Your task to perform on an android device: turn on the 24-hour format for clock Image 0: 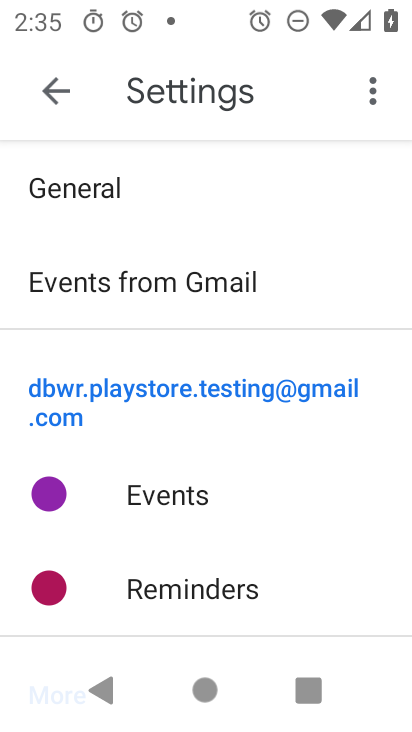
Step 0: press home button
Your task to perform on an android device: turn on the 24-hour format for clock Image 1: 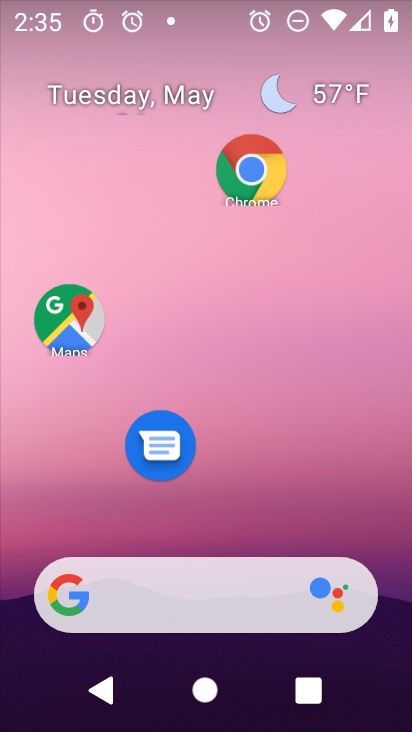
Step 1: drag from (247, 729) to (213, 95)
Your task to perform on an android device: turn on the 24-hour format for clock Image 2: 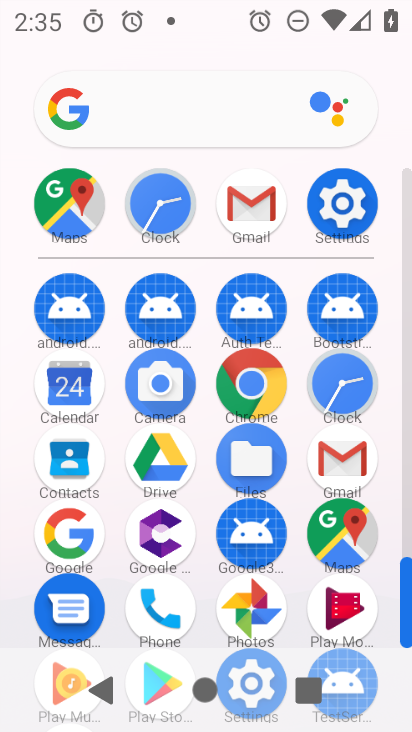
Step 2: click (344, 384)
Your task to perform on an android device: turn on the 24-hour format for clock Image 3: 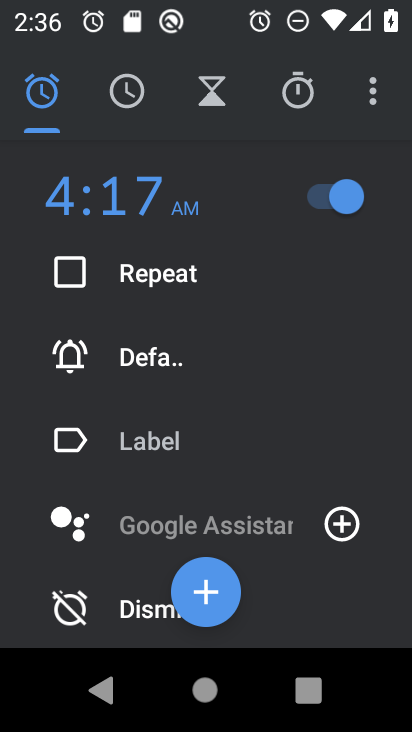
Step 3: click (374, 100)
Your task to perform on an android device: turn on the 24-hour format for clock Image 4: 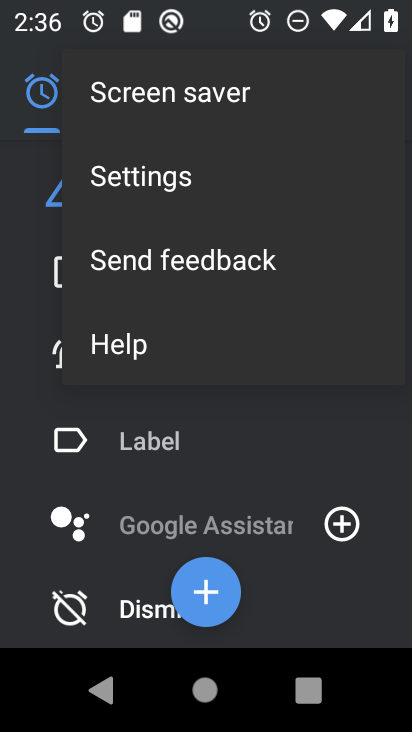
Step 4: click (168, 177)
Your task to perform on an android device: turn on the 24-hour format for clock Image 5: 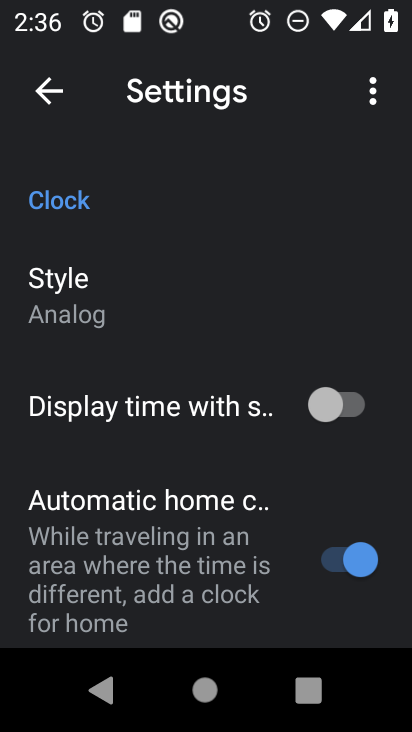
Step 5: drag from (134, 611) to (111, 227)
Your task to perform on an android device: turn on the 24-hour format for clock Image 6: 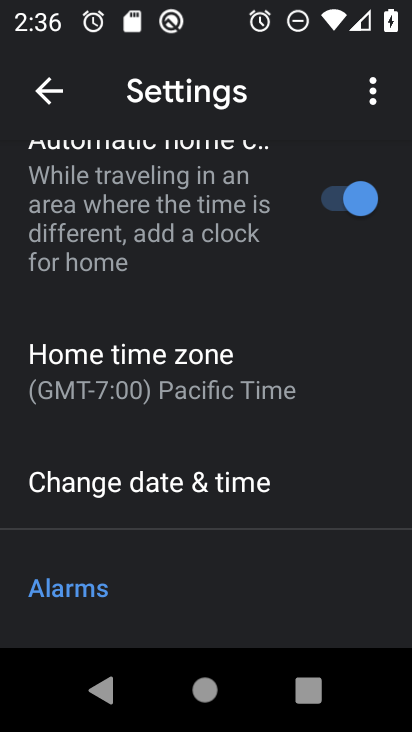
Step 6: click (161, 483)
Your task to perform on an android device: turn on the 24-hour format for clock Image 7: 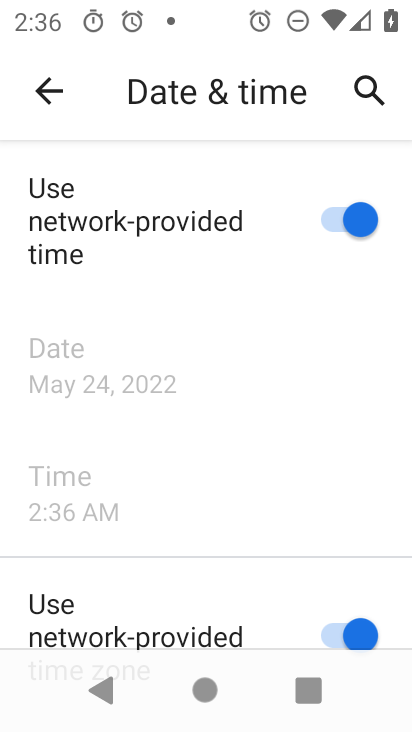
Step 7: drag from (147, 604) to (149, 300)
Your task to perform on an android device: turn on the 24-hour format for clock Image 8: 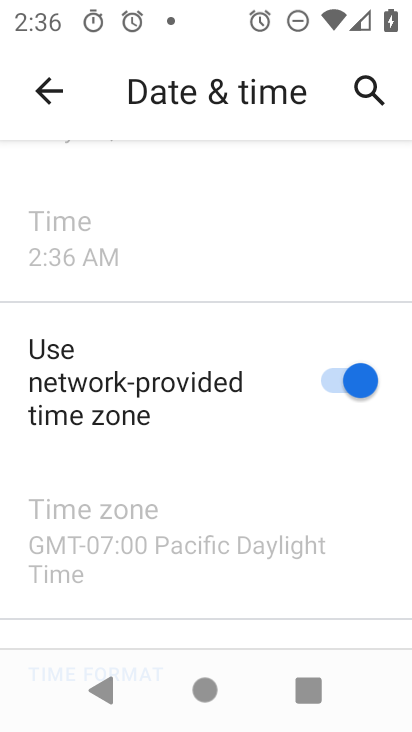
Step 8: drag from (276, 610) to (257, 252)
Your task to perform on an android device: turn on the 24-hour format for clock Image 9: 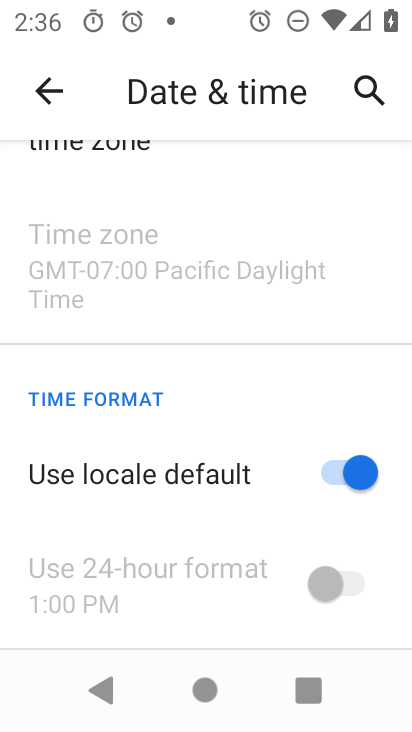
Step 9: click (339, 469)
Your task to perform on an android device: turn on the 24-hour format for clock Image 10: 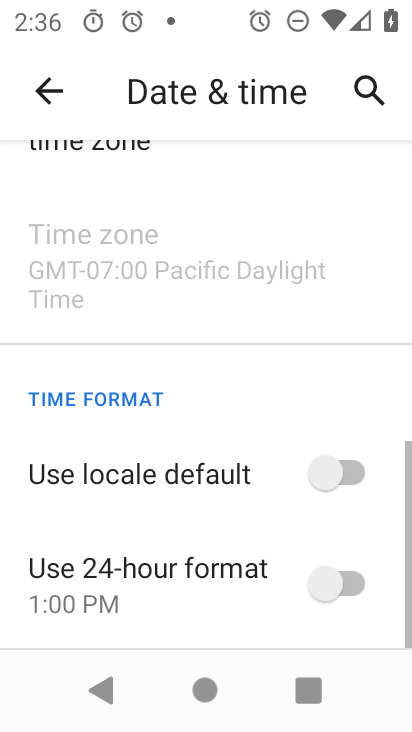
Step 10: click (354, 584)
Your task to perform on an android device: turn on the 24-hour format for clock Image 11: 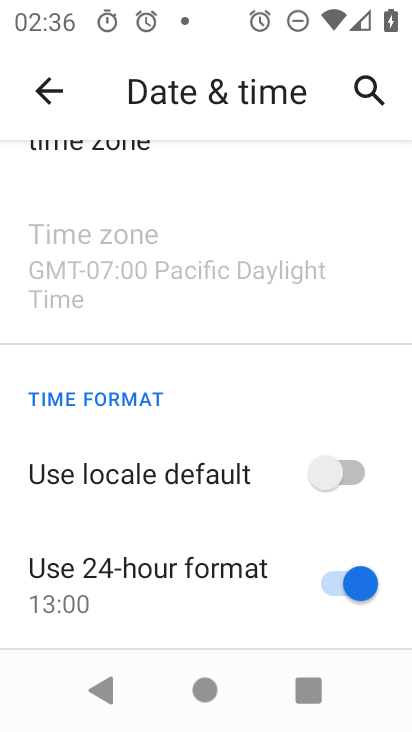
Step 11: task complete